Your task to perform on an android device: Clear the shopping cart on bestbuy.com. Search for "usb-c to usb-b" on bestbuy.com, select the first entry, add it to the cart, then select checkout. Image 0: 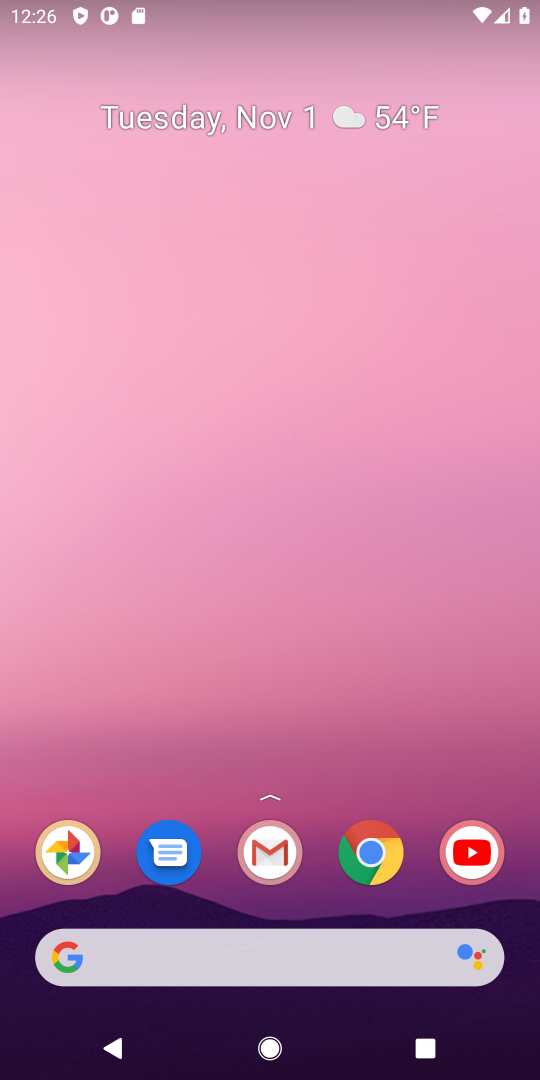
Step 0: click (381, 874)
Your task to perform on an android device: Clear the shopping cart on bestbuy.com. Search for "usb-c to usb-b" on bestbuy.com, select the first entry, add it to the cart, then select checkout. Image 1: 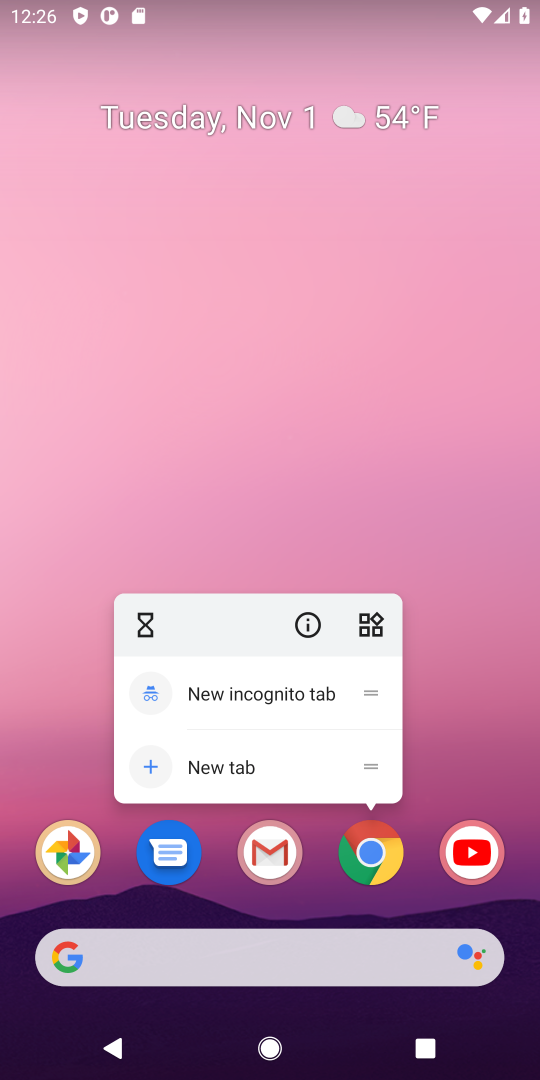
Step 1: click (385, 853)
Your task to perform on an android device: Clear the shopping cart on bestbuy.com. Search for "usb-c to usb-b" on bestbuy.com, select the first entry, add it to the cart, then select checkout. Image 2: 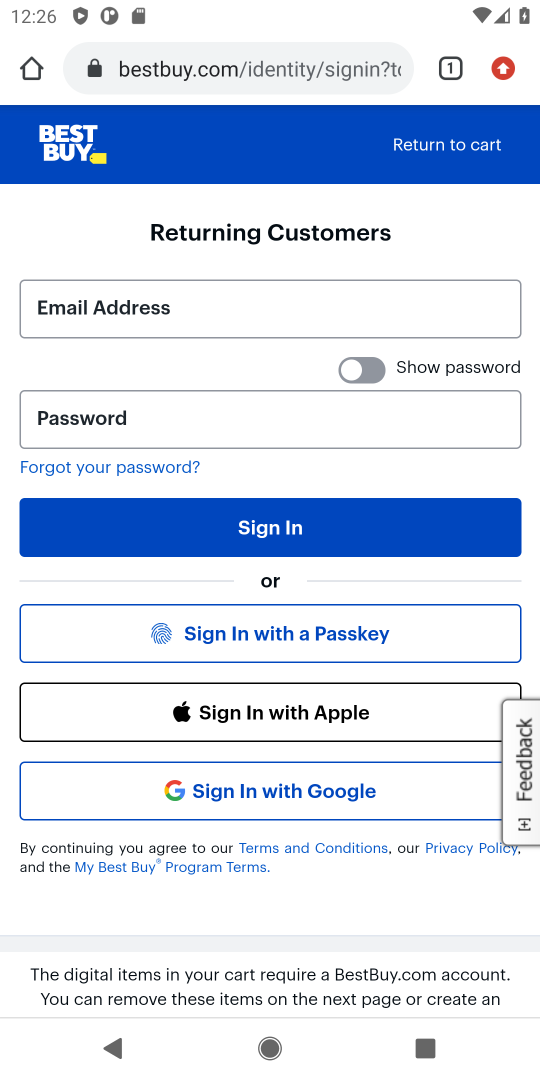
Step 2: click (275, 77)
Your task to perform on an android device: Clear the shopping cart on bestbuy.com. Search for "usb-c to usb-b" on bestbuy.com, select the first entry, add it to the cart, then select checkout. Image 3: 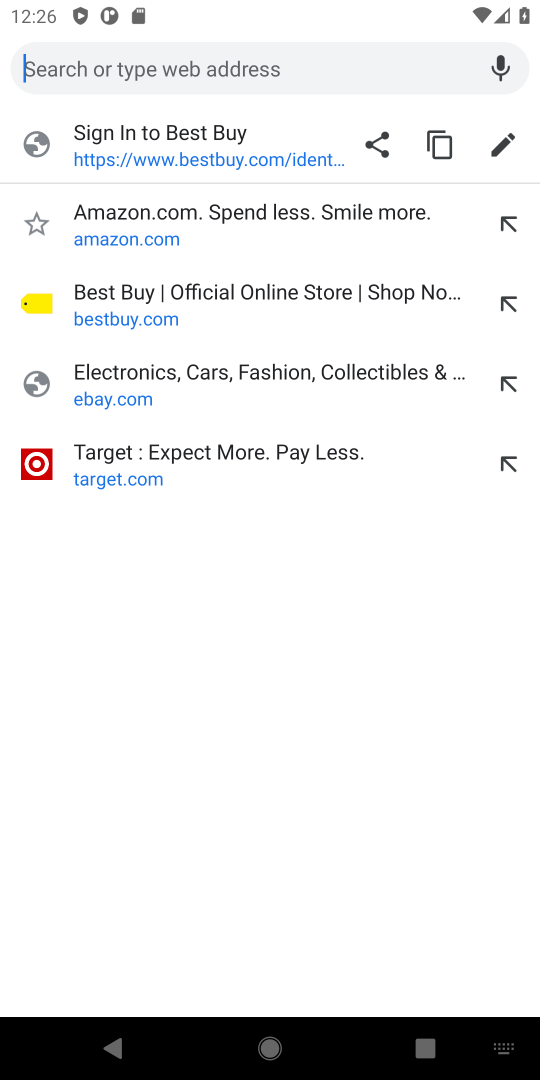
Step 3: type "bestbuy.com"
Your task to perform on an android device: Clear the shopping cart on bestbuy.com. Search for "usb-c to usb-b" on bestbuy.com, select the first entry, add it to the cart, then select checkout. Image 4: 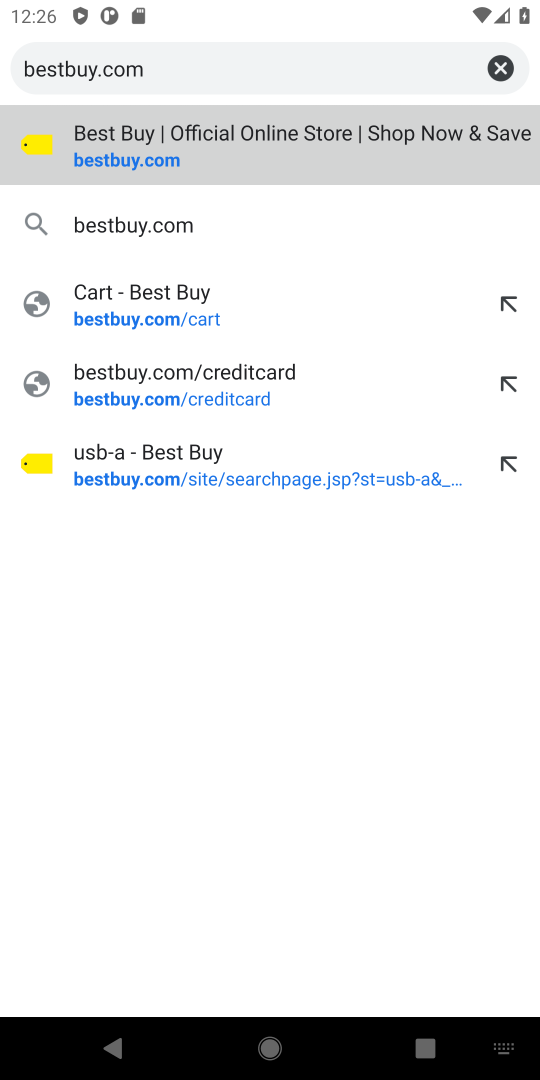
Step 4: press enter
Your task to perform on an android device: Clear the shopping cart on bestbuy.com. Search for "usb-c to usb-b" on bestbuy.com, select the first entry, add it to the cart, then select checkout. Image 5: 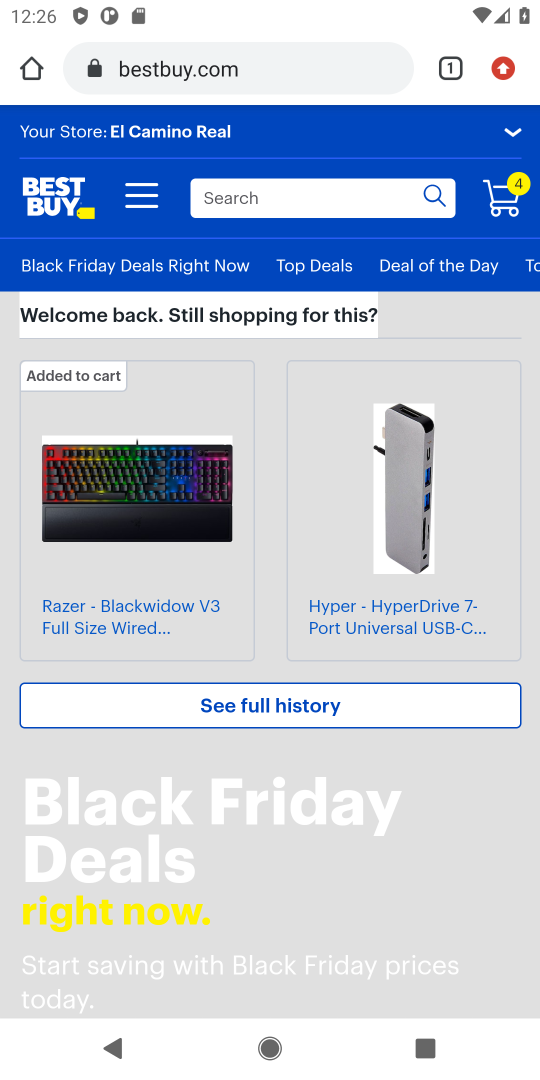
Step 5: click (514, 208)
Your task to perform on an android device: Clear the shopping cart on bestbuy.com. Search for "usb-c to usb-b" on bestbuy.com, select the first entry, add it to the cart, then select checkout. Image 6: 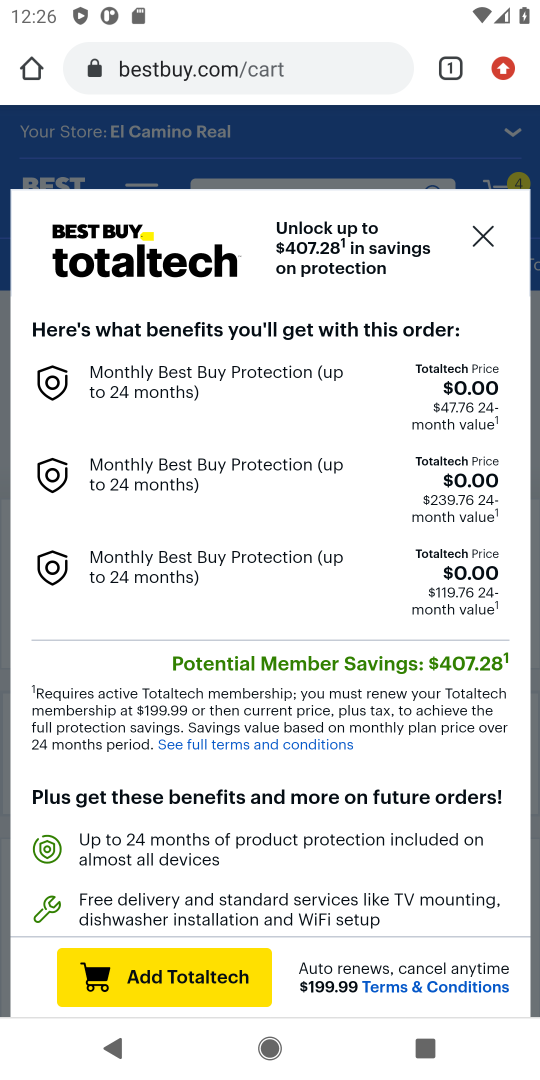
Step 6: click (482, 229)
Your task to perform on an android device: Clear the shopping cart on bestbuy.com. Search for "usb-c to usb-b" on bestbuy.com, select the first entry, add it to the cart, then select checkout. Image 7: 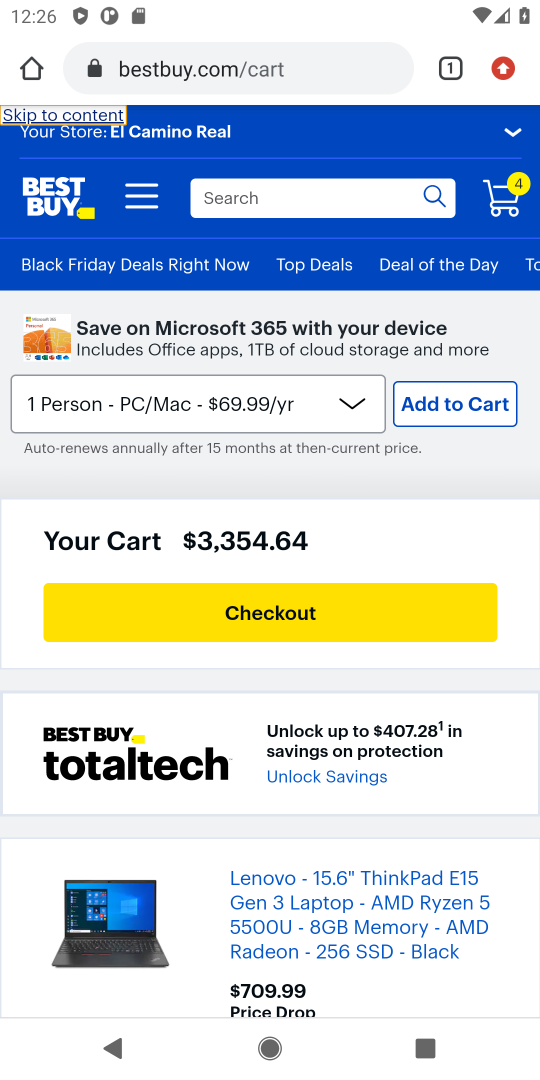
Step 7: drag from (220, 827) to (176, 470)
Your task to perform on an android device: Clear the shopping cart on bestbuy.com. Search for "usb-c to usb-b" on bestbuy.com, select the first entry, add it to the cart, then select checkout. Image 8: 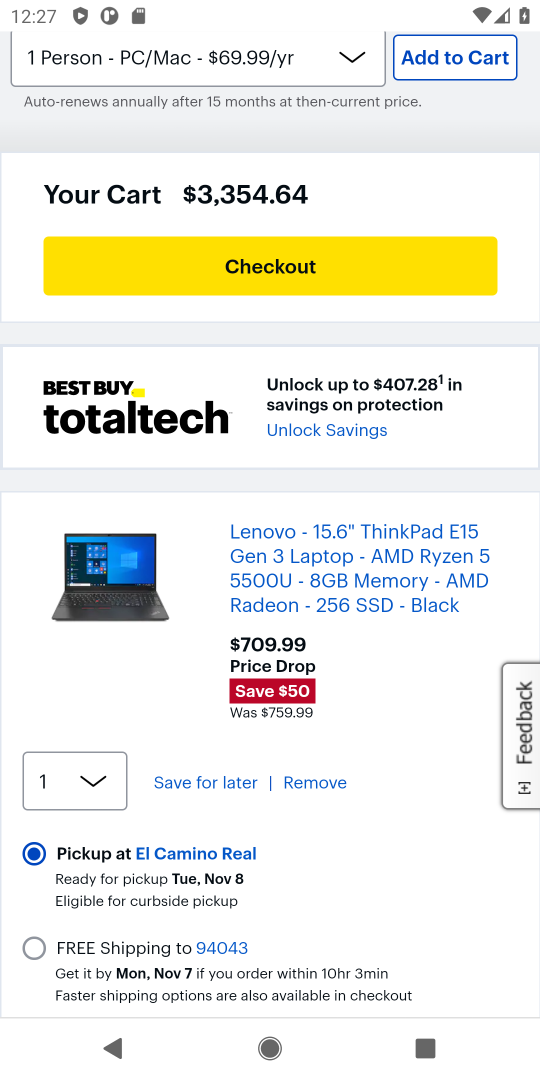
Step 8: click (327, 781)
Your task to perform on an android device: Clear the shopping cart on bestbuy.com. Search for "usb-c to usb-b" on bestbuy.com, select the first entry, add it to the cart, then select checkout. Image 9: 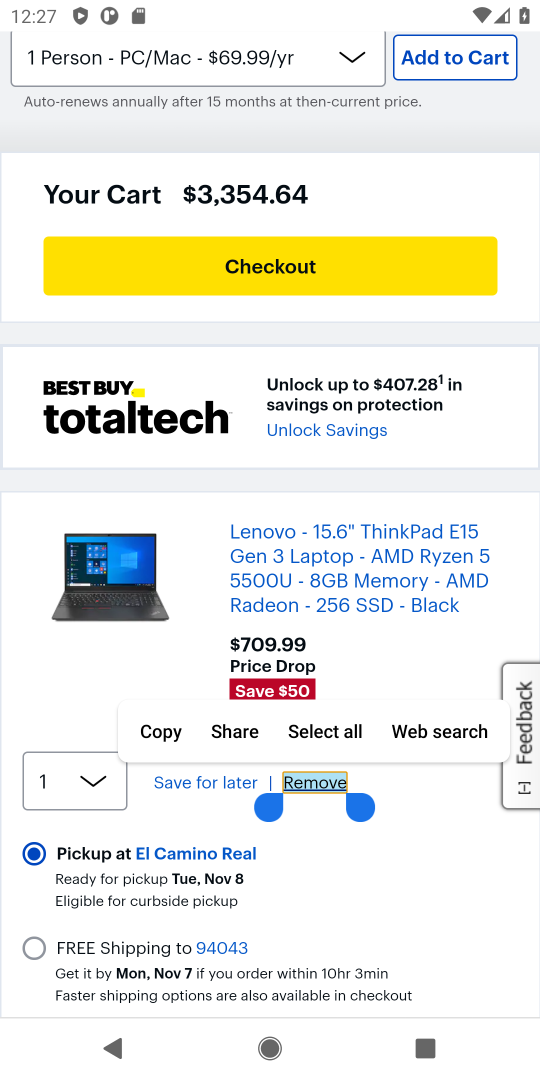
Step 9: click (318, 786)
Your task to perform on an android device: Clear the shopping cart on bestbuy.com. Search for "usb-c to usb-b" on bestbuy.com, select the first entry, add it to the cart, then select checkout. Image 10: 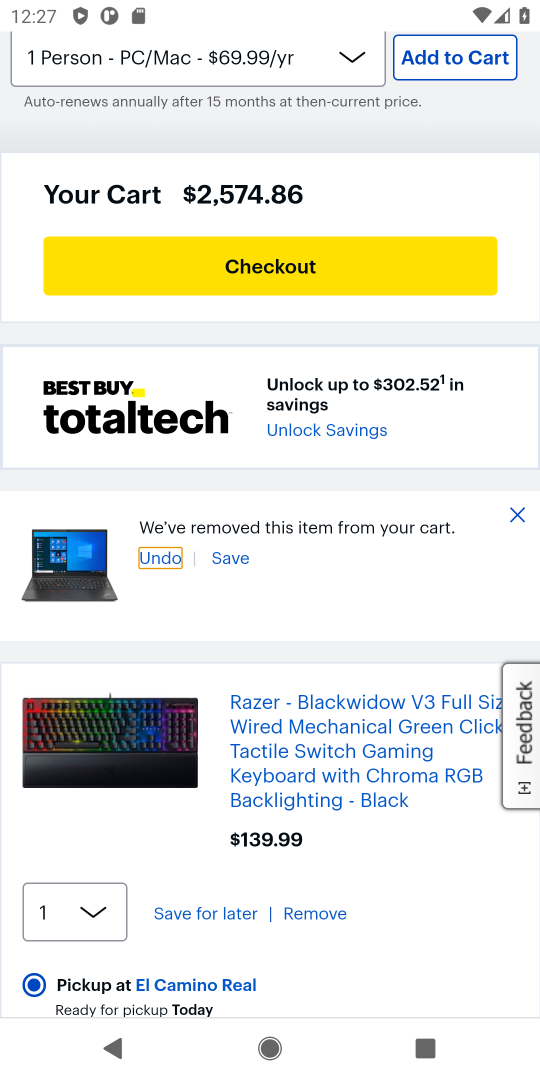
Step 10: click (318, 914)
Your task to perform on an android device: Clear the shopping cart on bestbuy.com. Search for "usb-c to usb-b" on bestbuy.com, select the first entry, add it to the cart, then select checkout. Image 11: 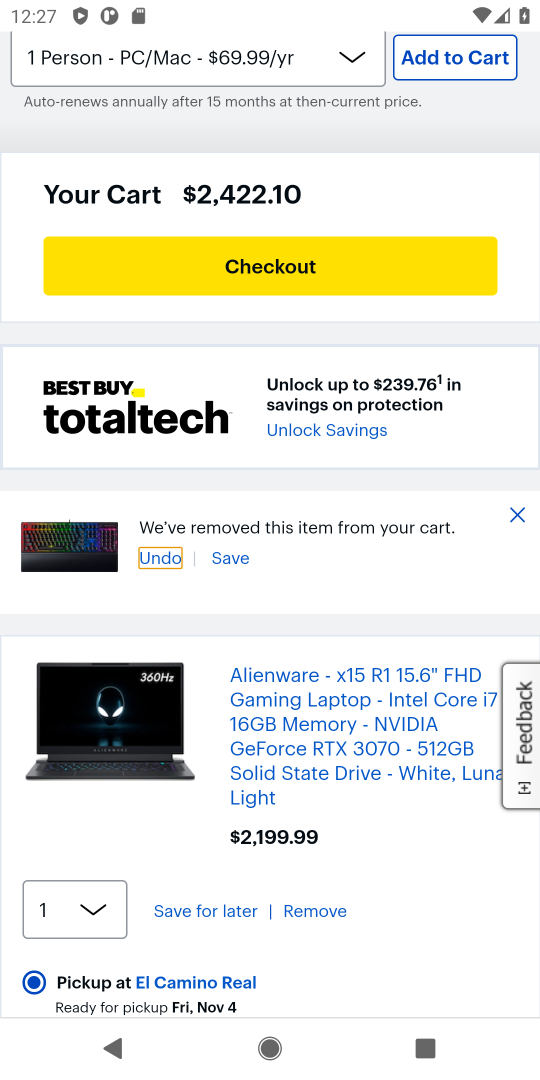
Step 11: click (318, 914)
Your task to perform on an android device: Clear the shopping cart on bestbuy.com. Search for "usb-c to usb-b" on bestbuy.com, select the first entry, add it to the cart, then select checkout. Image 12: 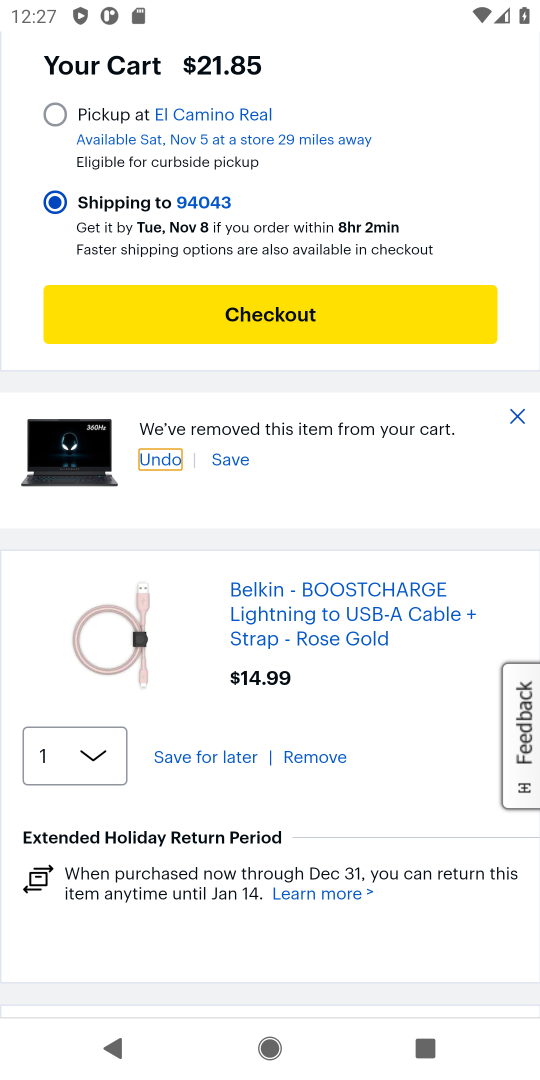
Step 12: click (326, 752)
Your task to perform on an android device: Clear the shopping cart on bestbuy.com. Search for "usb-c to usb-b" on bestbuy.com, select the first entry, add it to the cart, then select checkout. Image 13: 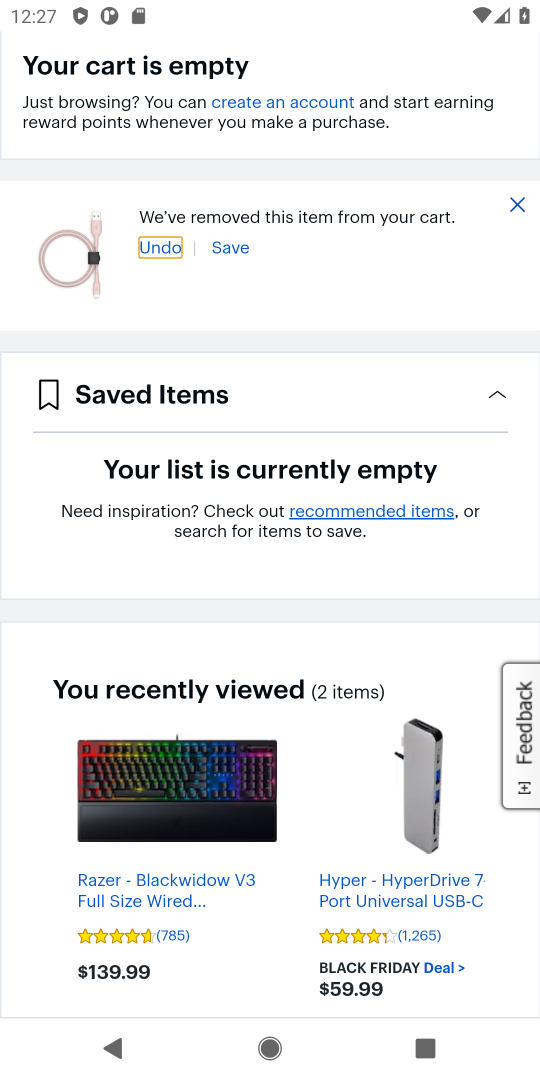
Step 13: drag from (344, 325) to (356, 721)
Your task to perform on an android device: Clear the shopping cart on bestbuy.com. Search for "usb-c to usb-b" on bestbuy.com, select the first entry, add it to the cart, then select checkout. Image 14: 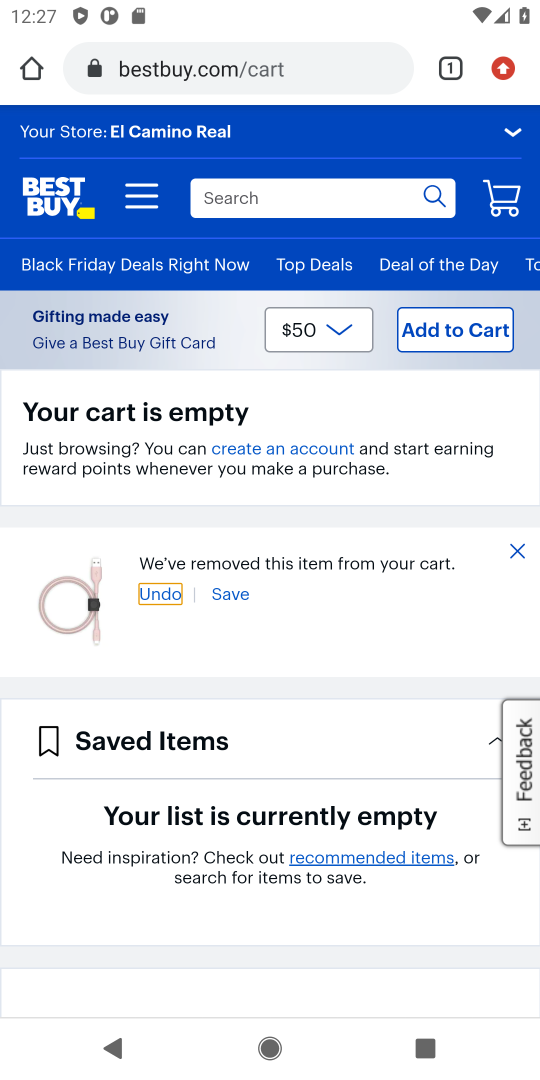
Step 14: click (298, 200)
Your task to perform on an android device: Clear the shopping cart on bestbuy.com. Search for "usb-c to usb-b" on bestbuy.com, select the first entry, add it to the cart, then select checkout. Image 15: 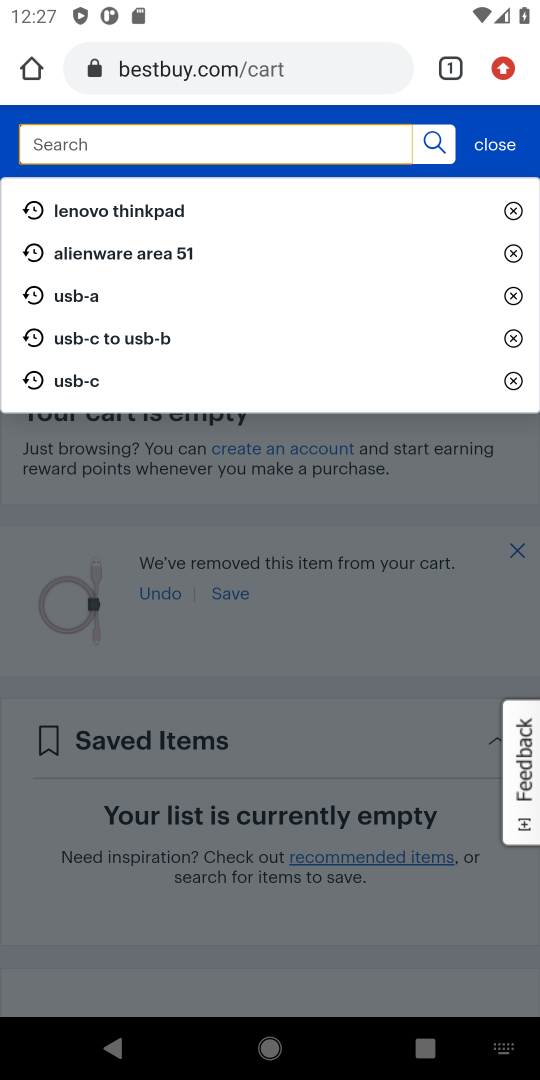
Step 15: type "usb-c to usb-b"
Your task to perform on an android device: Clear the shopping cart on bestbuy.com. Search for "usb-c to usb-b" on bestbuy.com, select the first entry, add it to the cart, then select checkout. Image 16: 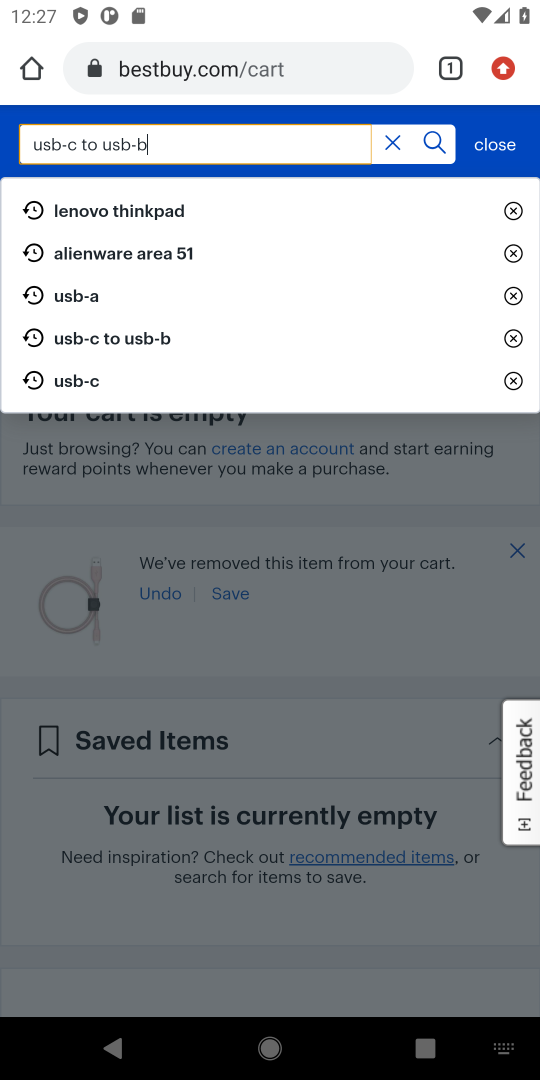
Step 16: type ""
Your task to perform on an android device: Clear the shopping cart on bestbuy.com. Search for "usb-c to usb-b" on bestbuy.com, select the first entry, add it to the cart, then select checkout. Image 17: 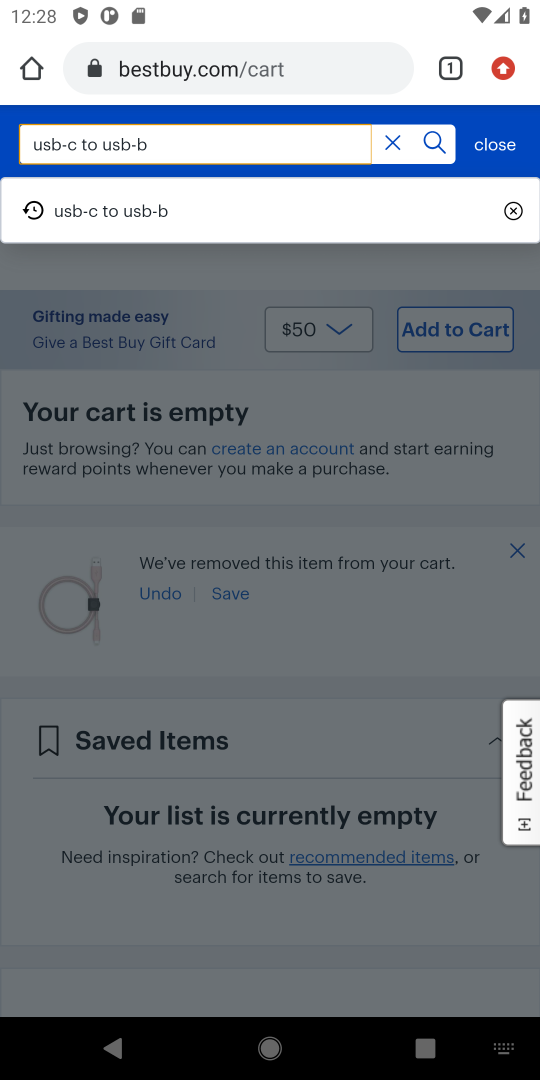
Step 17: press enter
Your task to perform on an android device: Clear the shopping cart on bestbuy.com. Search for "usb-c to usb-b" on bestbuy.com, select the first entry, add it to the cart, then select checkout. Image 18: 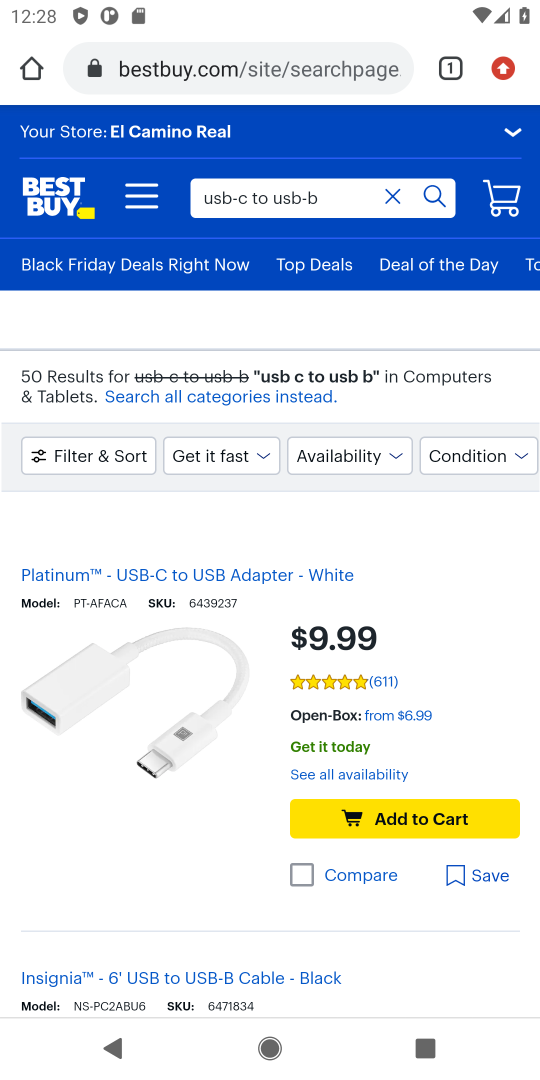
Step 18: click (410, 822)
Your task to perform on an android device: Clear the shopping cart on bestbuy.com. Search for "usb-c to usb-b" on bestbuy.com, select the first entry, add it to the cart, then select checkout. Image 19: 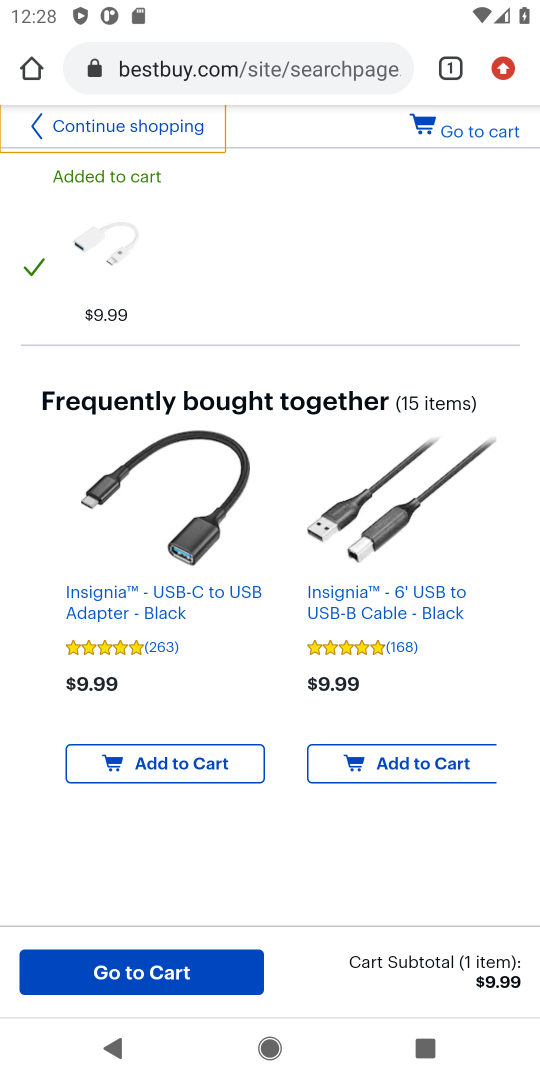
Step 19: click (214, 975)
Your task to perform on an android device: Clear the shopping cart on bestbuy.com. Search for "usb-c to usb-b" on bestbuy.com, select the first entry, add it to the cart, then select checkout. Image 20: 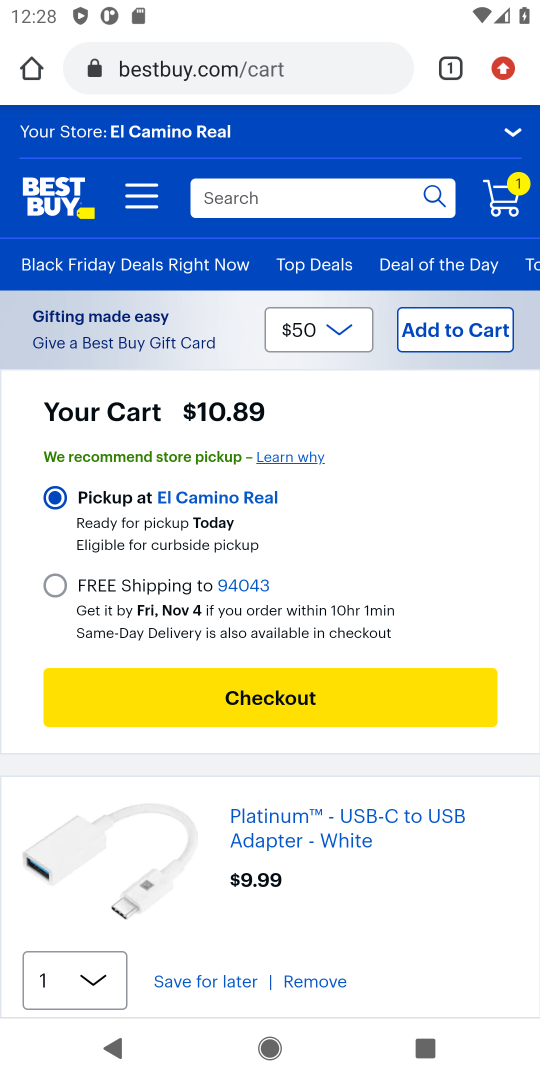
Step 20: click (223, 706)
Your task to perform on an android device: Clear the shopping cart on bestbuy.com. Search for "usb-c to usb-b" on bestbuy.com, select the first entry, add it to the cart, then select checkout. Image 21: 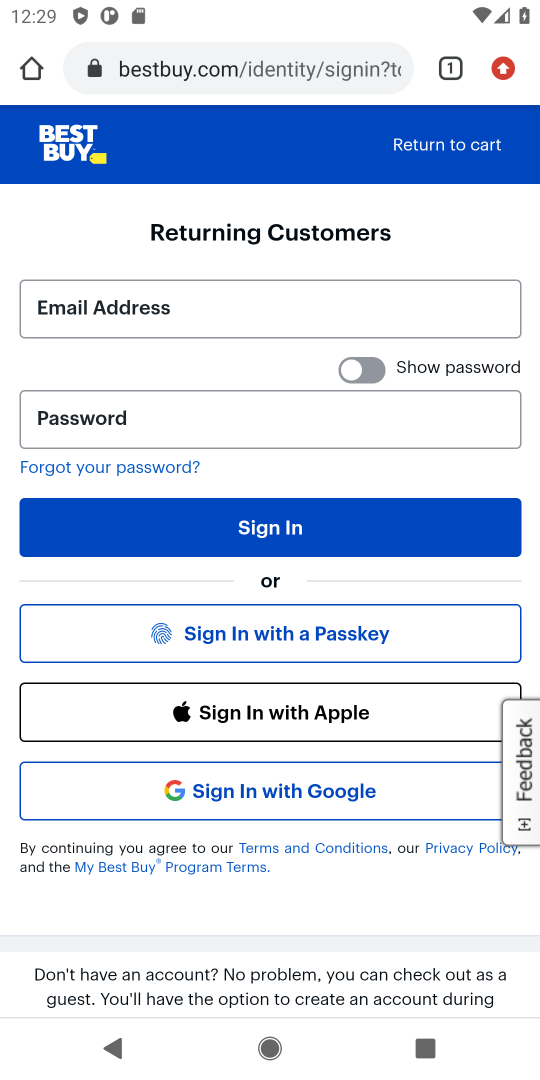
Step 21: task complete